Your task to perform on an android device: Open calendar and show me the second week of next month Image 0: 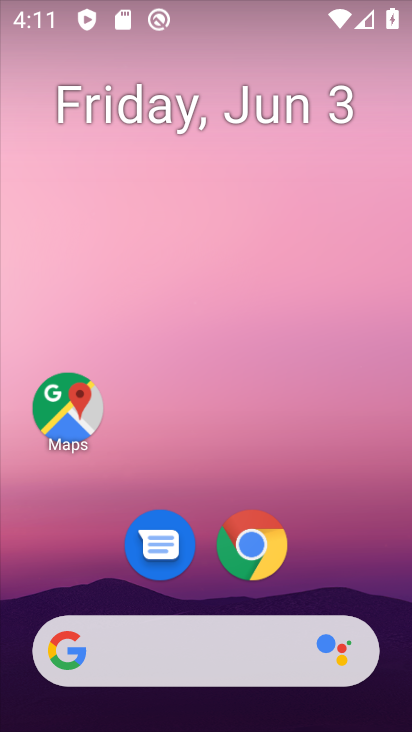
Step 0: drag from (92, 506) to (177, 175)
Your task to perform on an android device: Open calendar and show me the second week of next month Image 1: 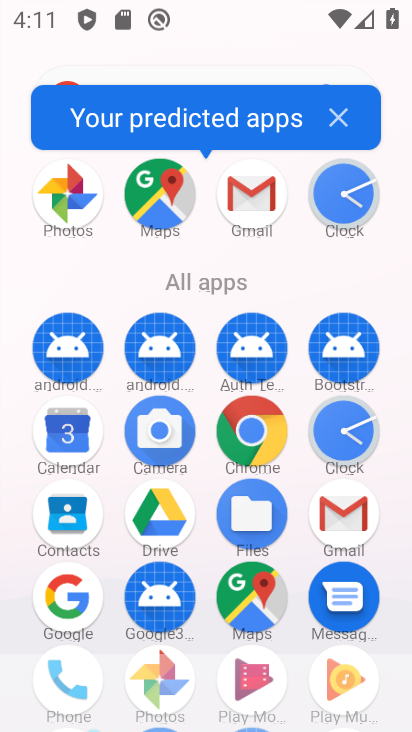
Step 1: click (73, 452)
Your task to perform on an android device: Open calendar and show me the second week of next month Image 2: 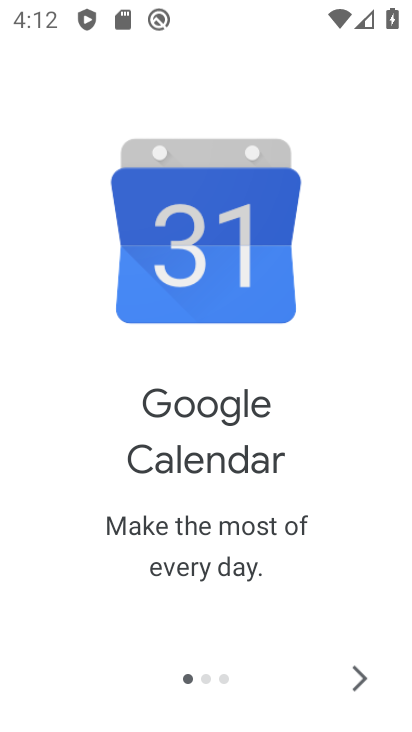
Step 2: click (371, 659)
Your task to perform on an android device: Open calendar and show me the second week of next month Image 3: 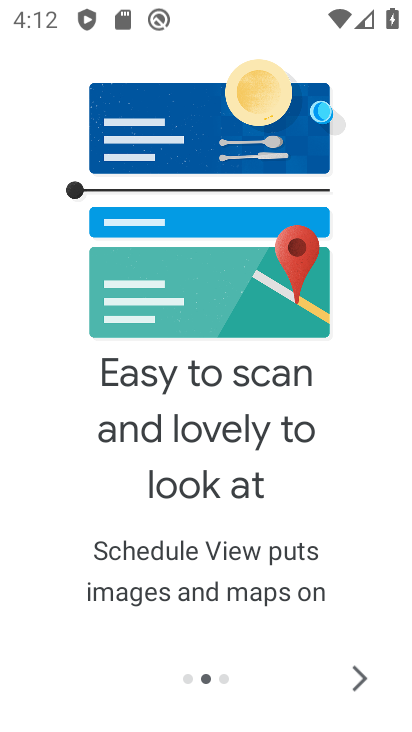
Step 3: click (369, 679)
Your task to perform on an android device: Open calendar and show me the second week of next month Image 4: 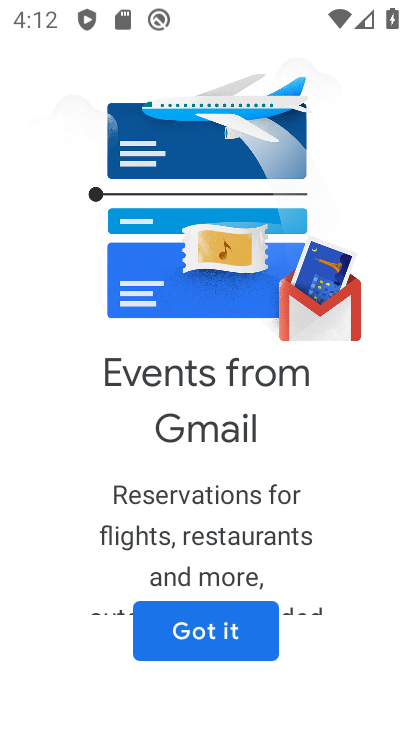
Step 4: click (237, 651)
Your task to perform on an android device: Open calendar and show me the second week of next month Image 5: 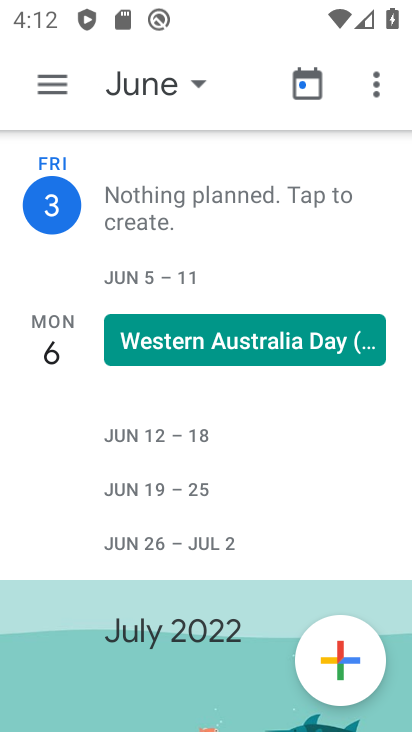
Step 5: click (147, 105)
Your task to perform on an android device: Open calendar and show me the second week of next month Image 6: 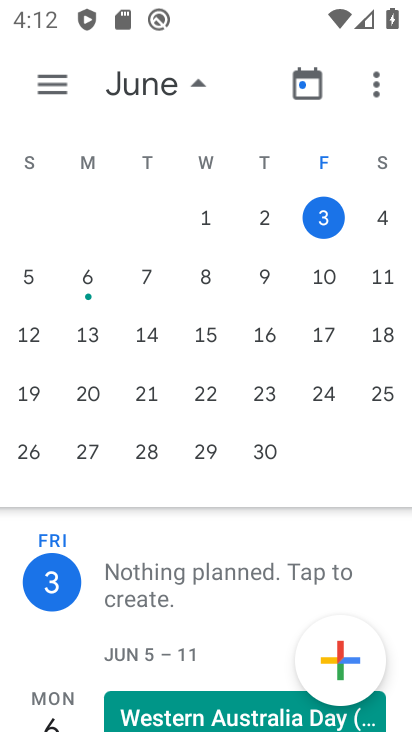
Step 6: click (26, 335)
Your task to perform on an android device: Open calendar and show me the second week of next month Image 7: 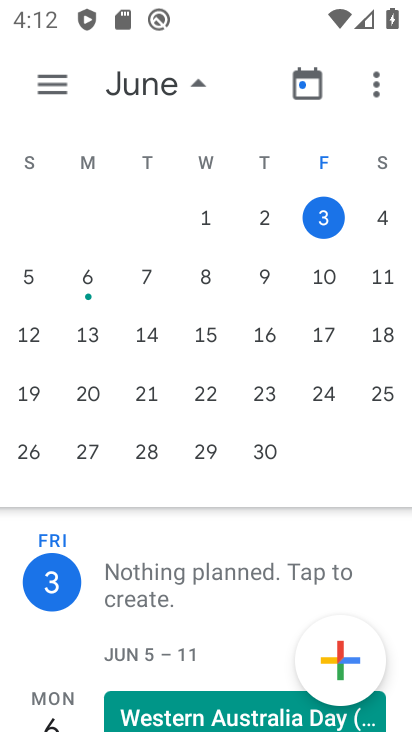
Step 7: click (26, 336)
Your task to perform on an android device: Open calendar and show me the second week of next month Image 8: 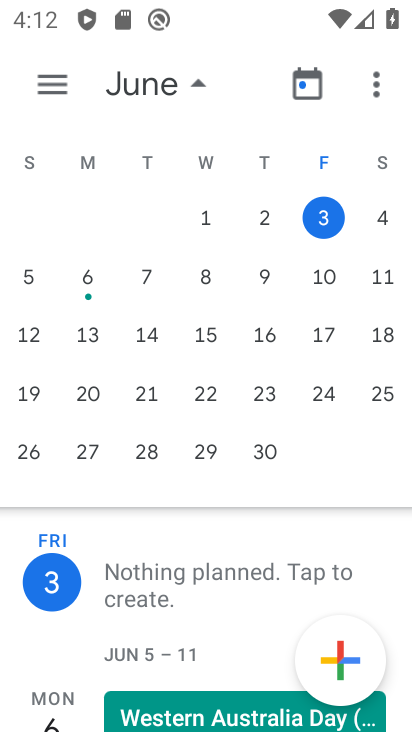
Step 8: click (27, 338)
Your task to perform on an android device: Open calendar and show me the second week of next month Image 9: 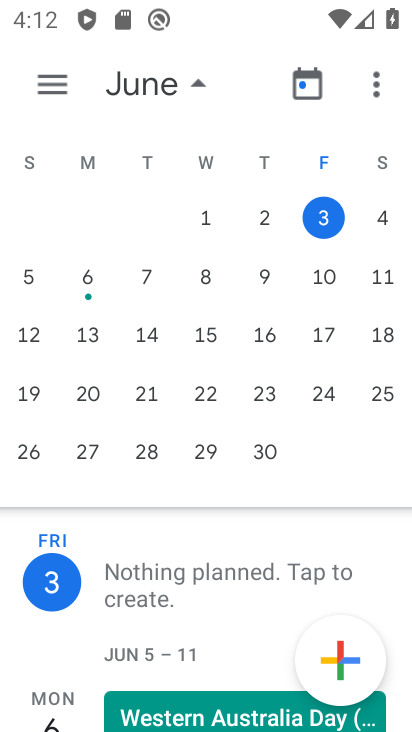
Step 9: click (29, 339)
Your task to perform on an android device: Open calendar and show me the second week of next month Image 10: 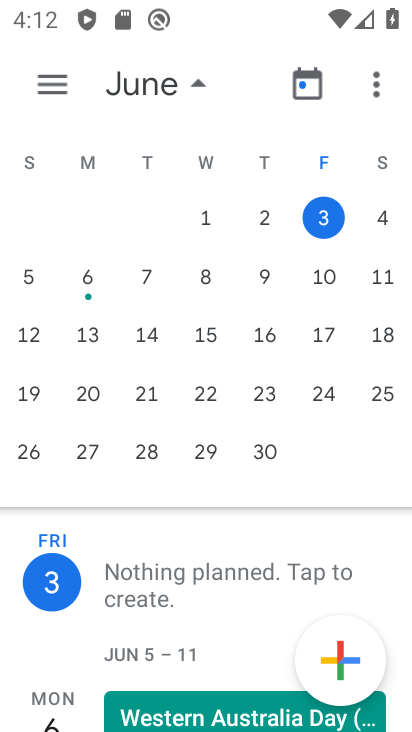
Step 10: click (34, 339)
Your task to perform on an android device: Open calendar and show me the second week of next month Image 11: 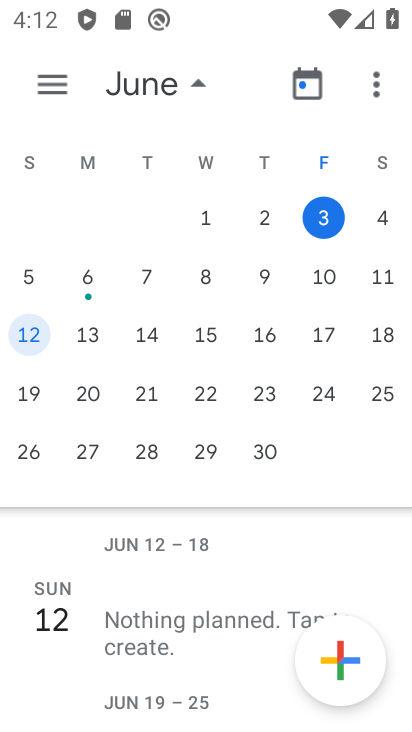
Step 11: click (62, 76)
Your task to perform on an android device: Open calendar and show me the second week of next month Image 12: 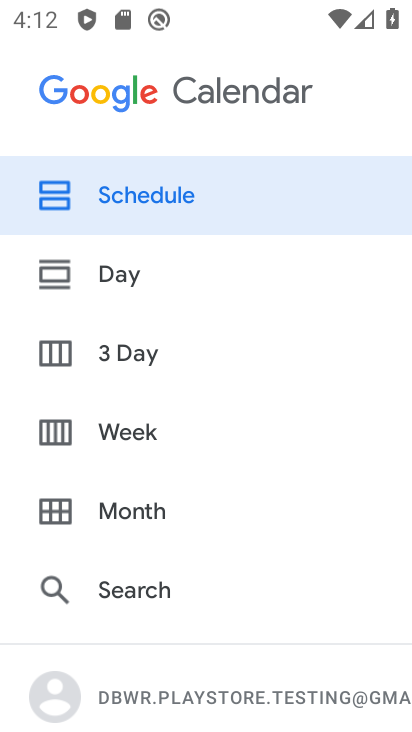
Step 12: click (121, 429)
Your task to perform on an android device: Open calendar and show me the second week of next month Image 13: 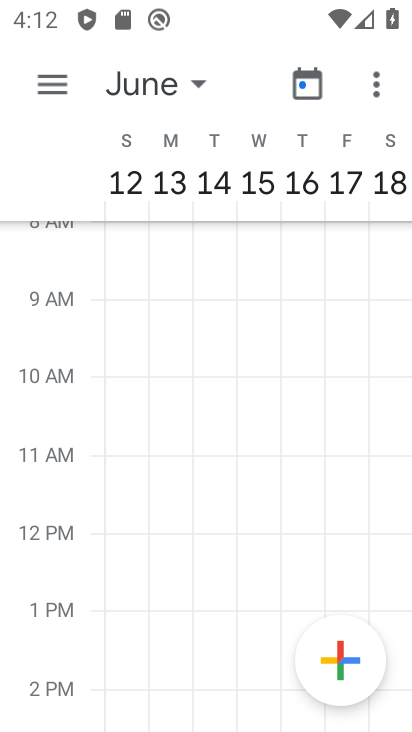
Step 13: task complete